Your task to perform on an android device: empty trash in google photos Image 0: 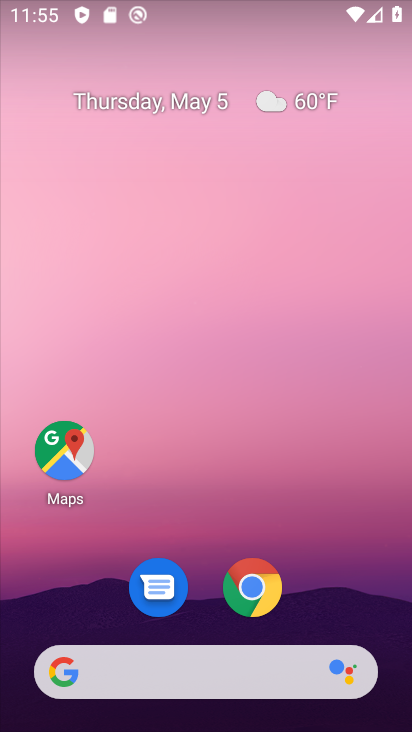
Step 0: drag from (344, 497) to (349, 370)
Your task to perform on an android device: empty trash in google photos Image 1: 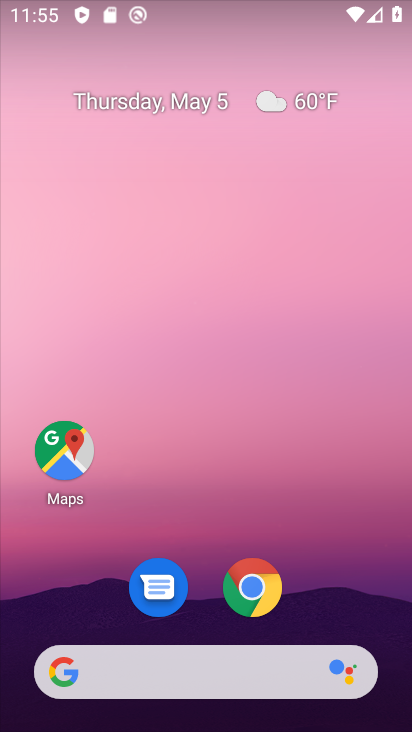
Step 1: drag from (397, 654) to (372, 255)
Your task to perform on an android device: empty trash in google photos Image 2: 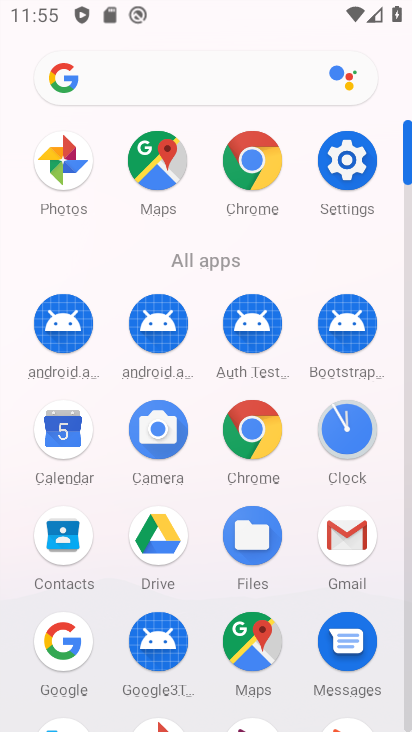
Step 2: drag from (403, 60) to (406, 8)
Your task to perform on an android device: empty trash in google photos Image 3: 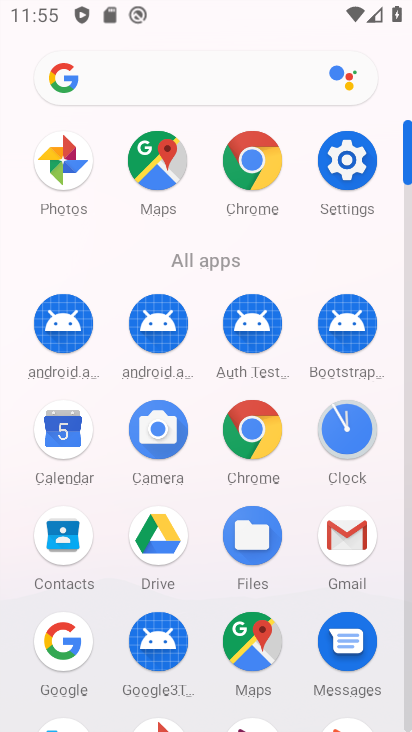
Step 3: drag from (404, 120) to (399, 52)
Your task to perform on an android device: empty trash in google photos Image 4: 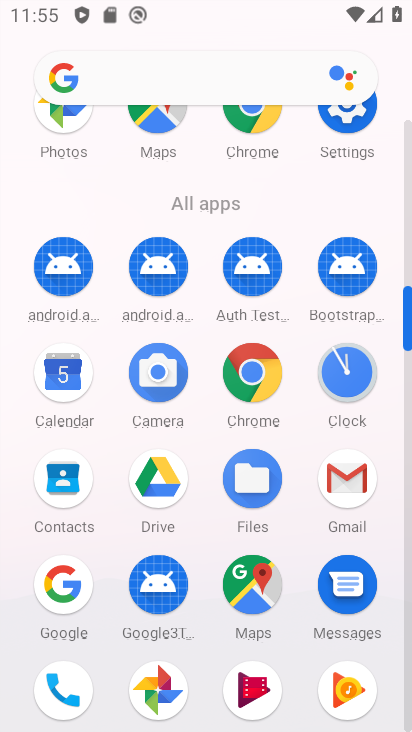
Step 4: click (166, 675)
Your task to perform on an android device: empty trash in google photos Image 5: 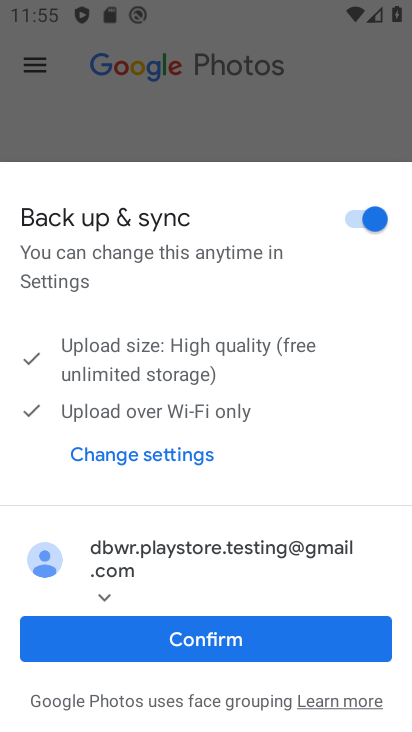
Step 5: click (258, 647)
Your task to perform on an android device: empty trash in google photos Image 6: 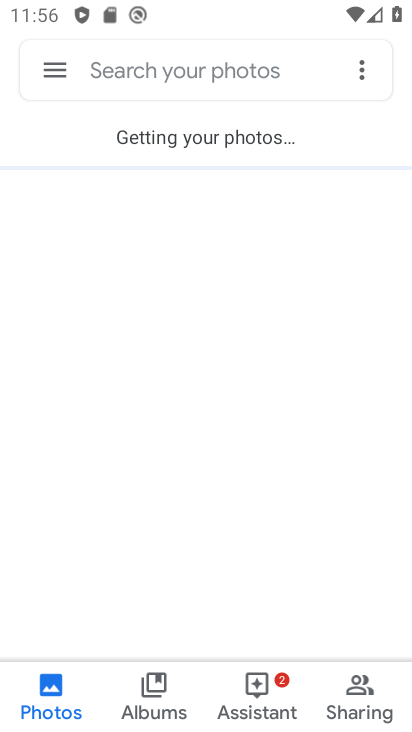
Step 6: click (43, 72)
Your task to perform on an android device: empty trash in google photos Image 7: 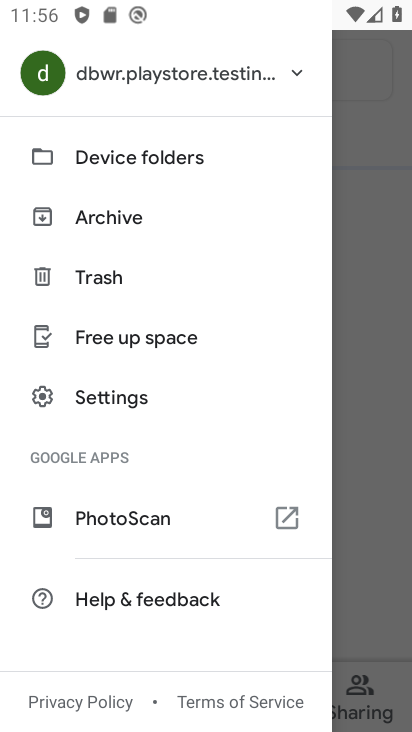
Step 7: click (101, 278)
Your task to perform on an android device: empty trash in google photos Image 8: 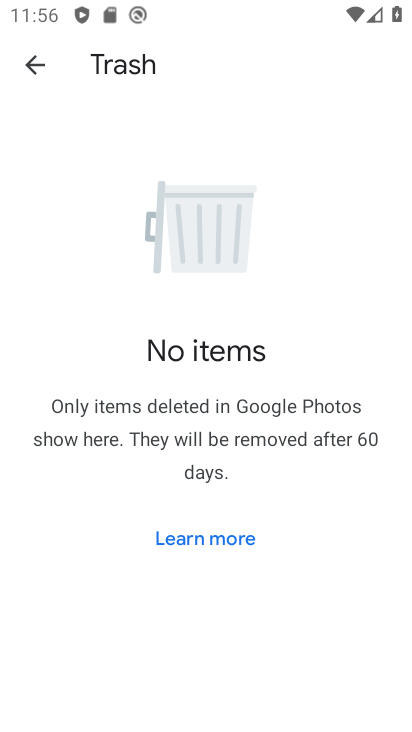
Step 8: task complete